Your task to perform on an android device: turn off notifications in google photos Image 0: 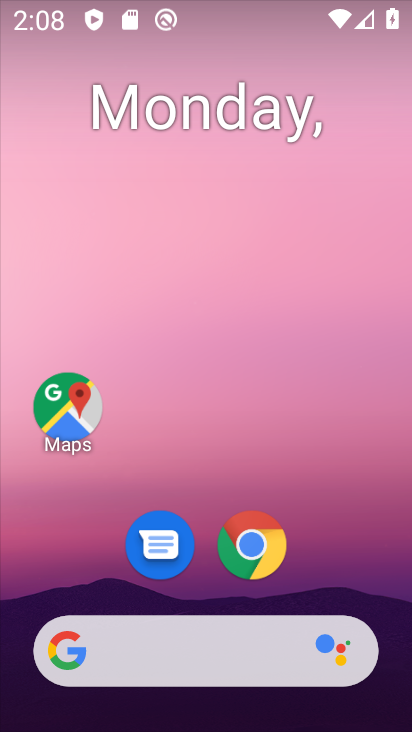
Step 0: drag from (231, 556) to (247, 31)
Your task to perform on an android device: turn off notifications in google photos Image 1: 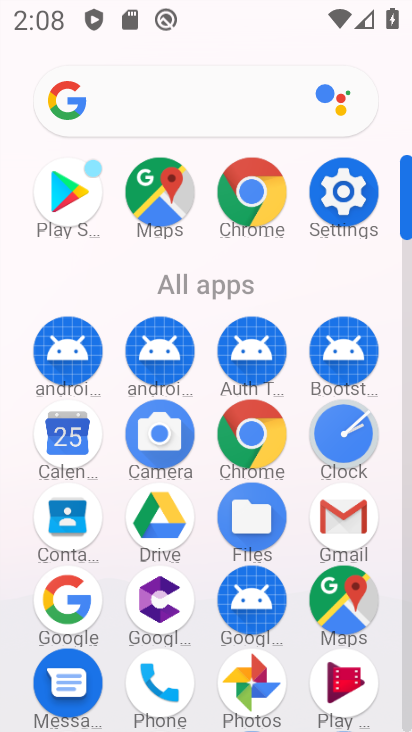
Step 1: click (247, 678)
Your task to perform on an android device: turn off notifications in google photos Image 2: 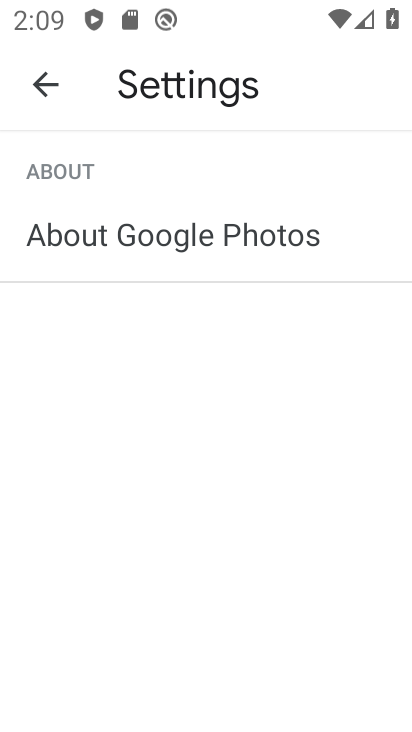
Step 2: click (38, 78)
Your task to perform on an android device: turn off notifications in google photos Image 3: 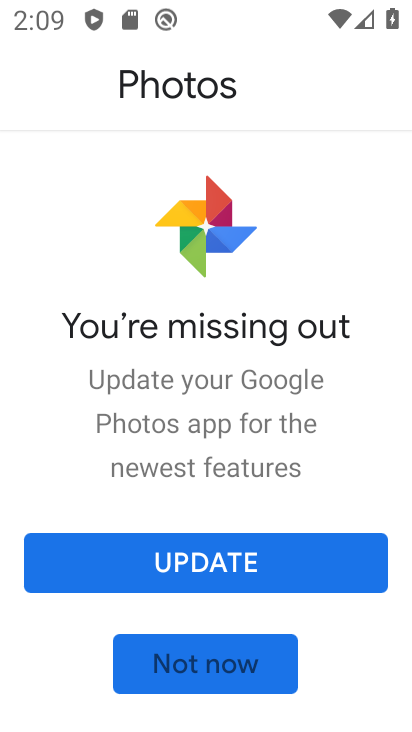
Step 3: click (226, 666)
Your task to perform on an android device: turn off notifications in google photos Image 4: 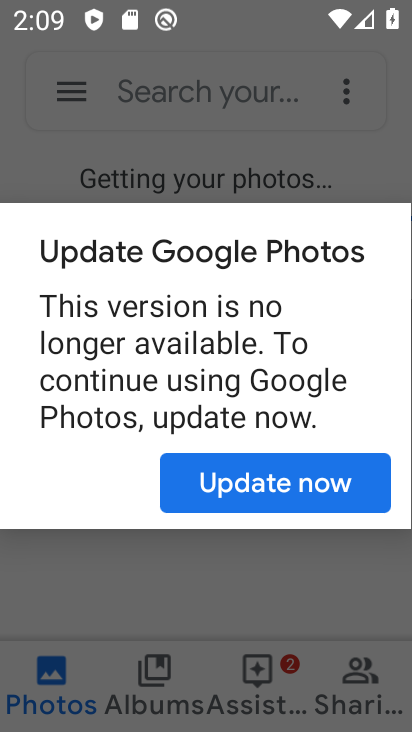
Step 4: press home button
Your task to perform on an android device: turn off notifications in google photos Image 5: 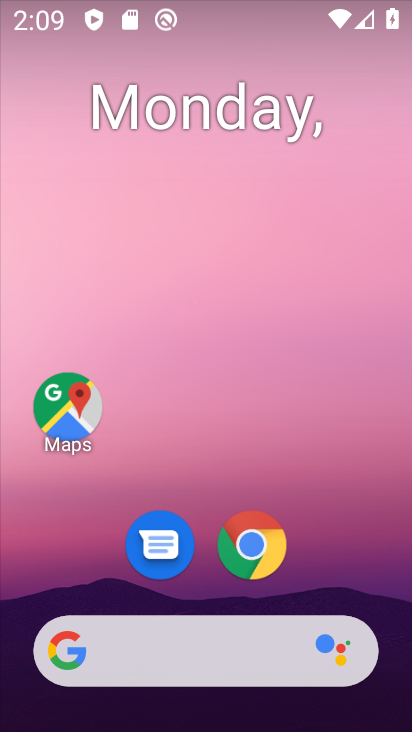
Step 5: drag from (174, 590) to (280, 37)
Your task to perform on an android device: turn off notifications in google photos Image 6: 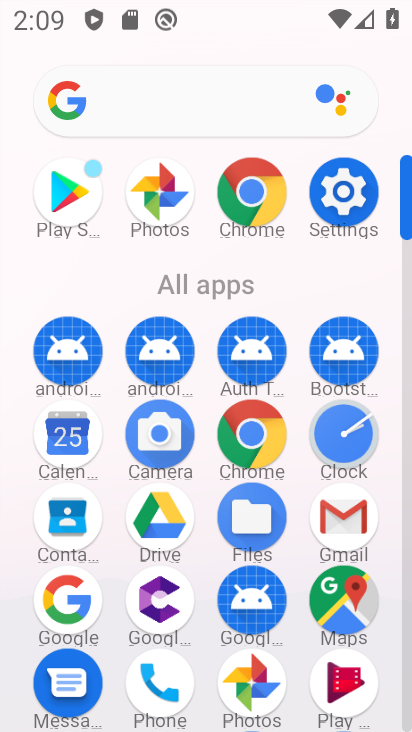
Step 6: click (161, 212)
Your task to perform on an android device: turn off notifications in google photos Image 7: 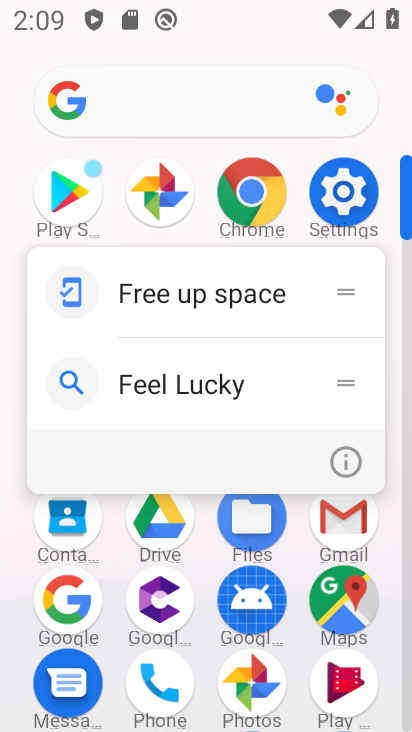
Step 7: click (353, 468)
Your task to perform on an android device: turn off notifications in google photos Image 8: 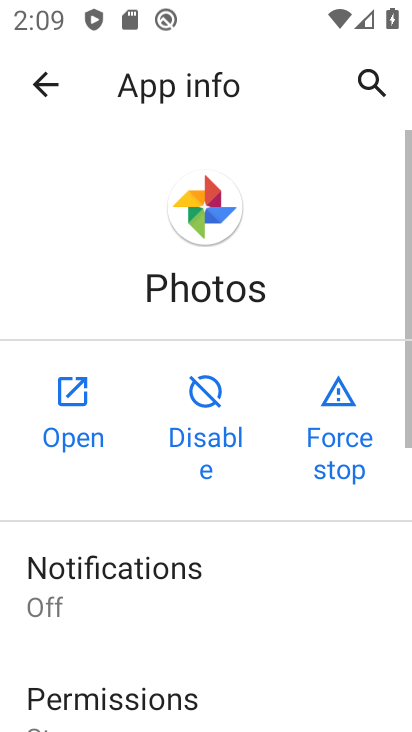
Step 8: click (177, 584)
Your task to perform on an android device: turn off notifications in google photos Image 9: 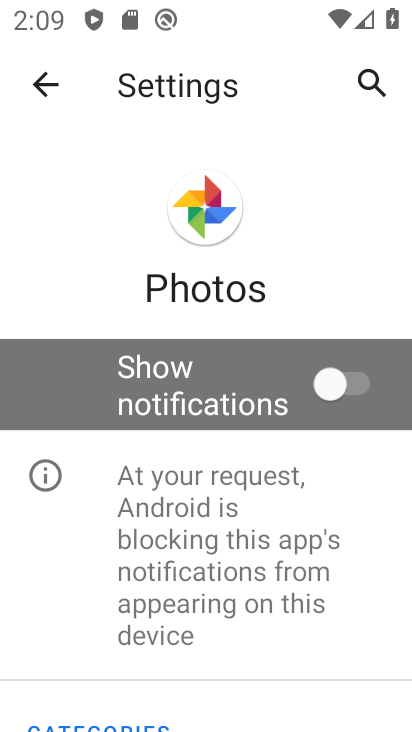
Step 9: task complete